Your task to perform on an android device: clear all cookies in the chrome app Image 0: 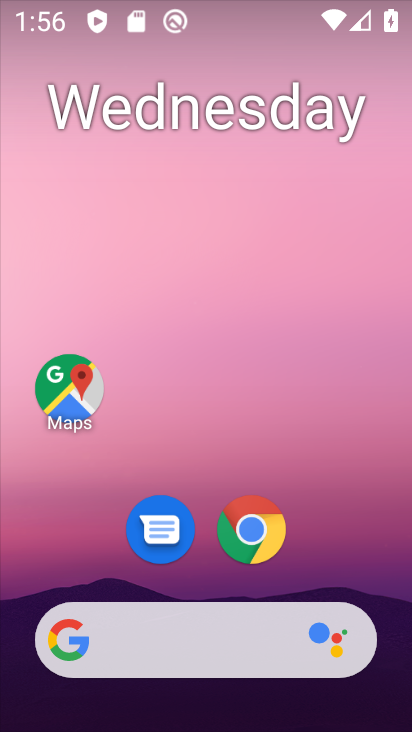
Step 0: click (277, 528)
Your task to perform on an android device: clear all cookies in the chrome app Image 1: 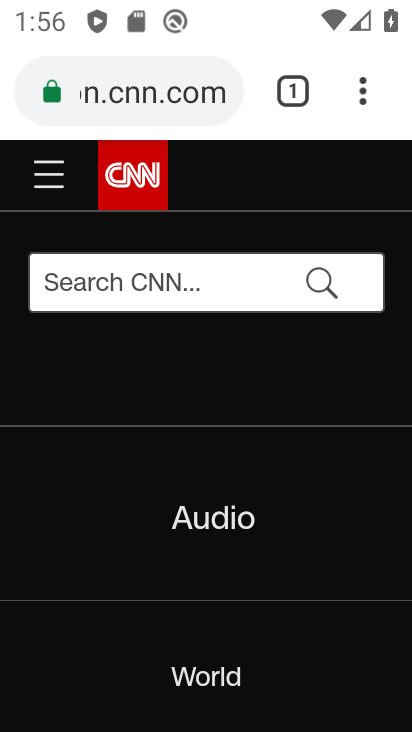
Step 1: drag from (359, 87) to (111, 517)
Your task to perform on an android device: clear all cookies in the chrome app Image 2: 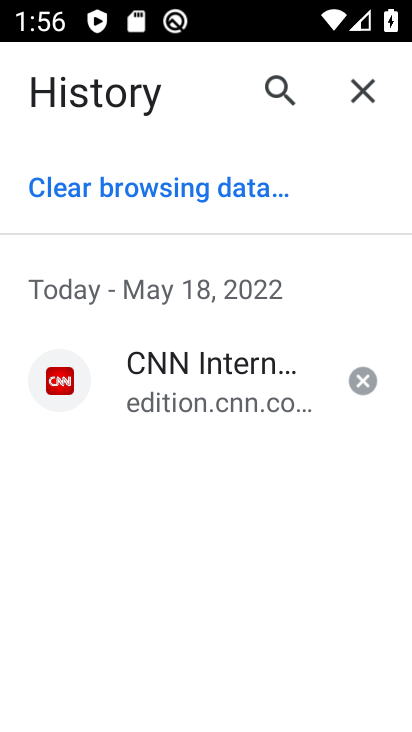
Step 2: click (187, 180)
Your task to perform on an android device: clear all cookies in the chrome app Image 3: 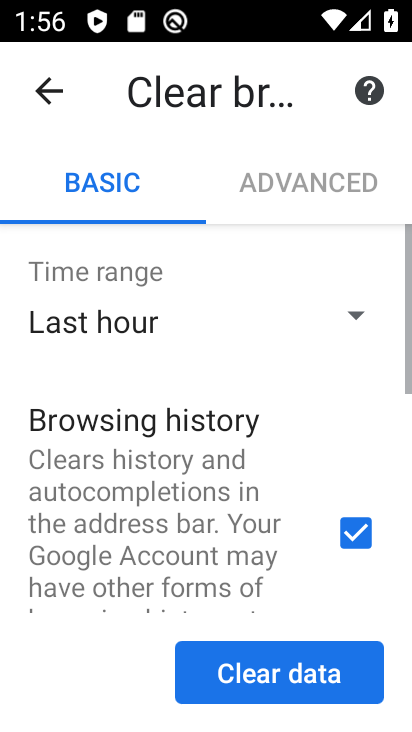
Step 3: drag from (208, 550) to (251, 244)
Your task to perform on an android device: clear all cookies in the chrome app Image 4: 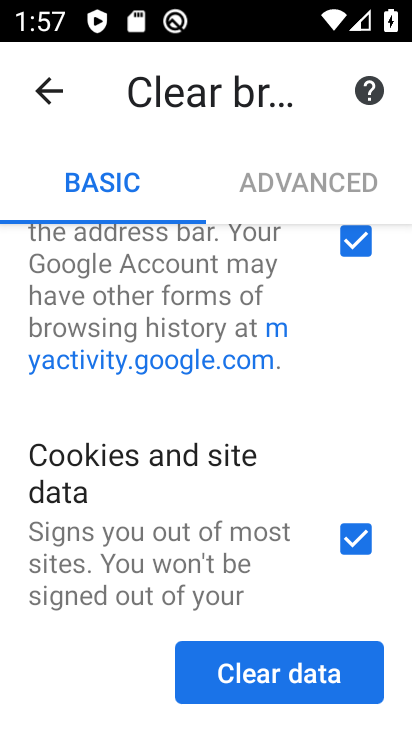
Step 4: click (367, 250)
Your task to perform on an android device: clear all cookies in the chrome app Image 5: 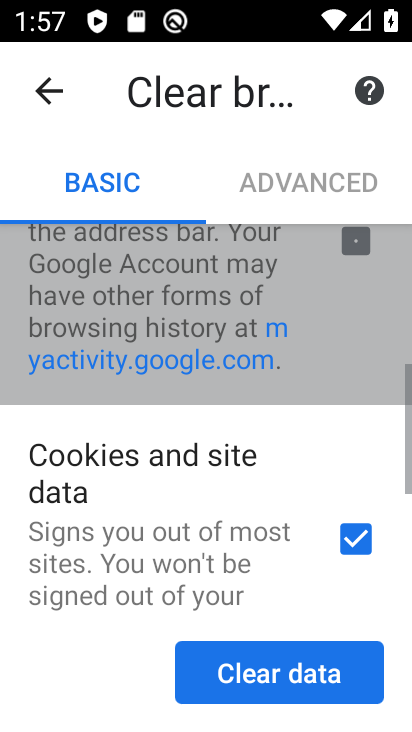
Step 5: drag from (180, 498) to (267, 175)
Your task to perform on an android device: clear all cookies in the chrome app Image 6: 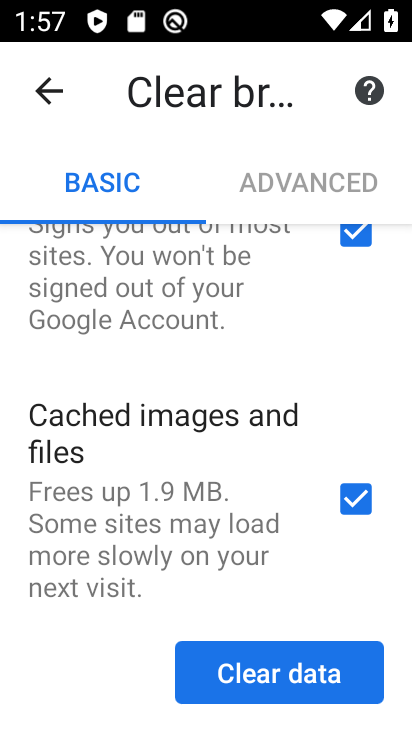
Step 6: click (368, 511)
Your task to perform on an android device: clear all cookies in the chrome app Image 7: 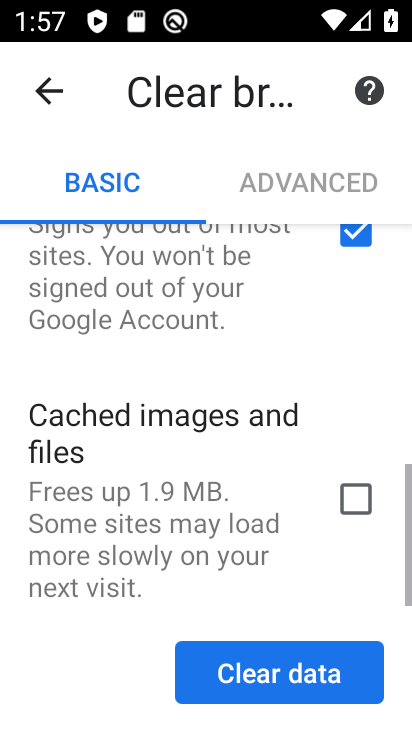
Step 7: click (245, 657)
Your task to perform on an android device: clear all cookies in the chrome app Image 8: 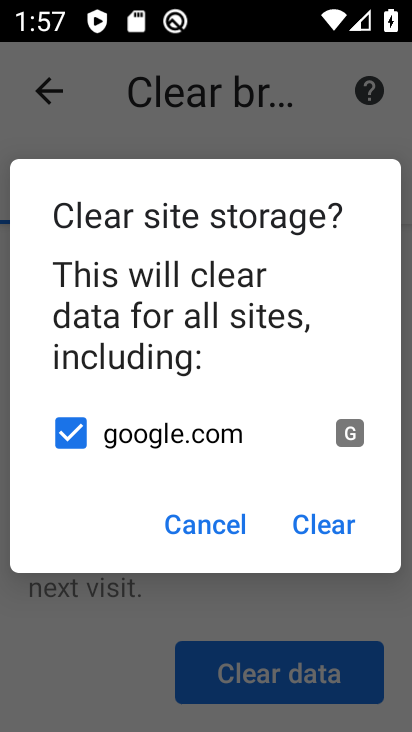
Step 8: click (338, 514)
Your task to perform on an android device: clear all cookies in the chrome app Image 9: 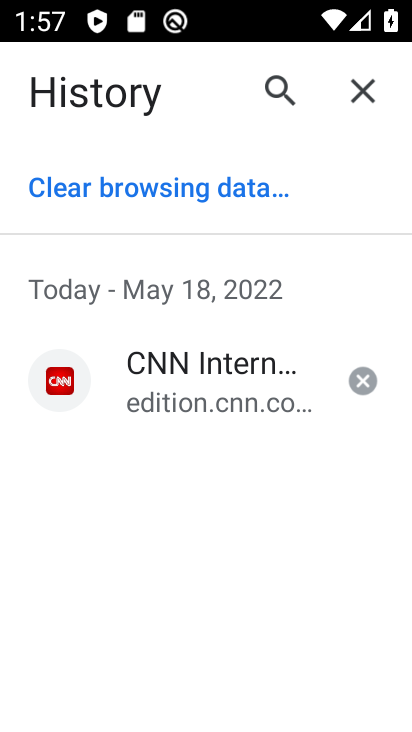
Step 9: task complete